Your task to perform on an android device: Open Youtube and go to the subscriptions tab Image 0: 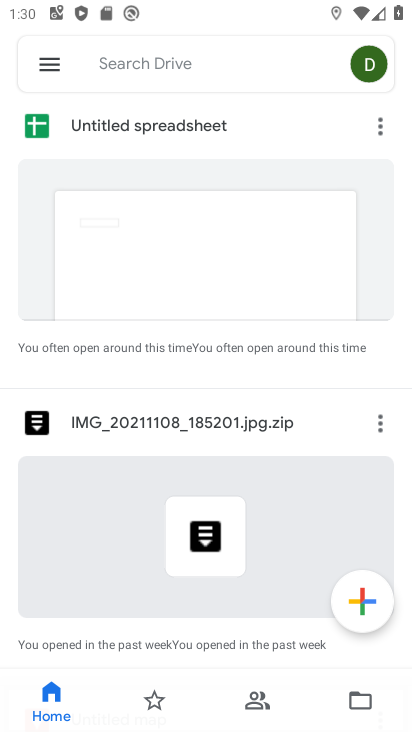
Step 0: press home button
Your task to perform on an android device: Open Youtube and go to the subscriptions tab Image 1: 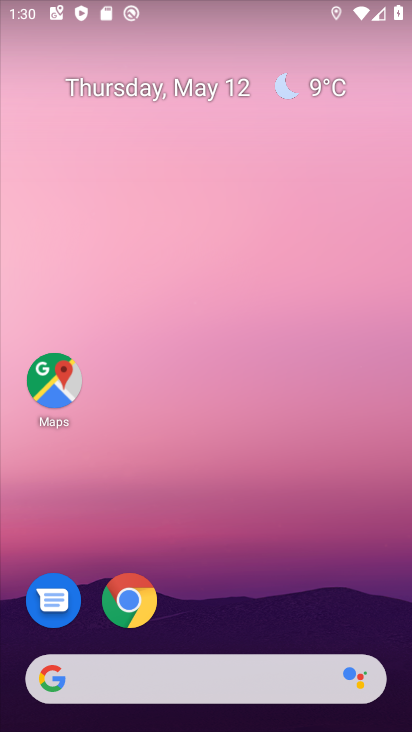
Step 1: drag from (293, 590) to (341, 0)
Your task to perform on an android device: Open Youtube and go to the subscriptions tab Image 2: 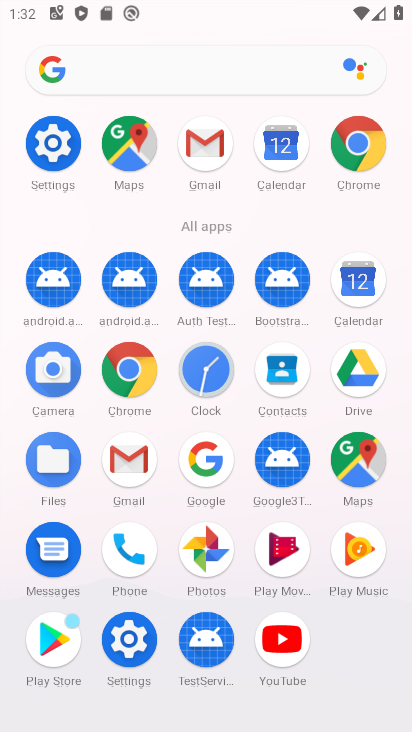
Step 2: click (263, 647)
Your task to perform on an android device: Open Youtube and go to the subscriptions tab Image 3: 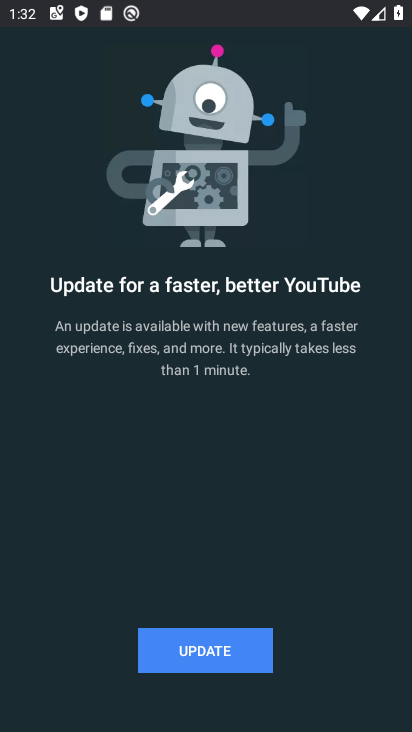
Step 3: click (263, 647)
Your task to perform on an android device: Open Youtube and go to the subscriptions tab Image 4: 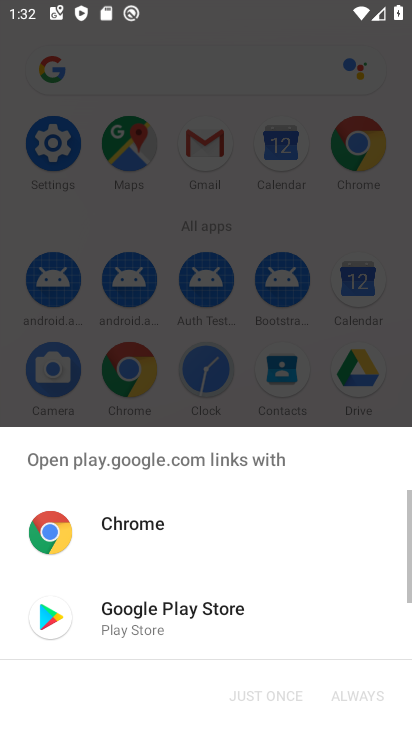
Step 4: click (261, 624)
Your task to perform on an android device: Open Youtube and go to the subscriptions tab Image 5: 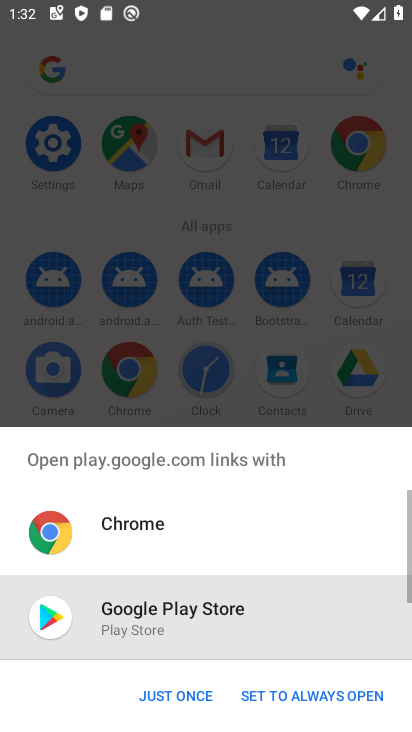
Step 5: click (259, 694)
Your task to perform on an android device: Open Youtube and go to the subscriptions tab Image 6: 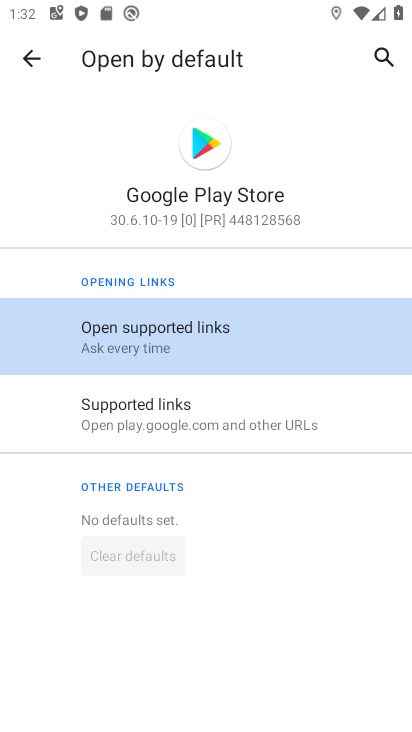
Step 6: click (18, 59)
Your task to perform on an android device: Open Youtube and go to the subscriptions tab Image 7: 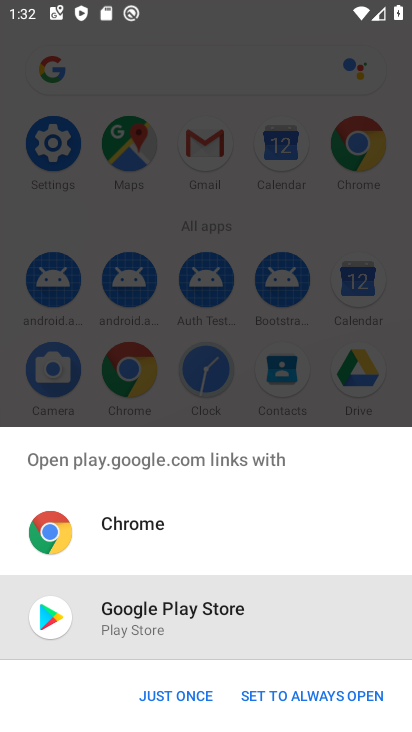
Step 7: click (150, 705)
Your task to perform on an android device: Open Youtube and go to the subscriptions tab Image 8: 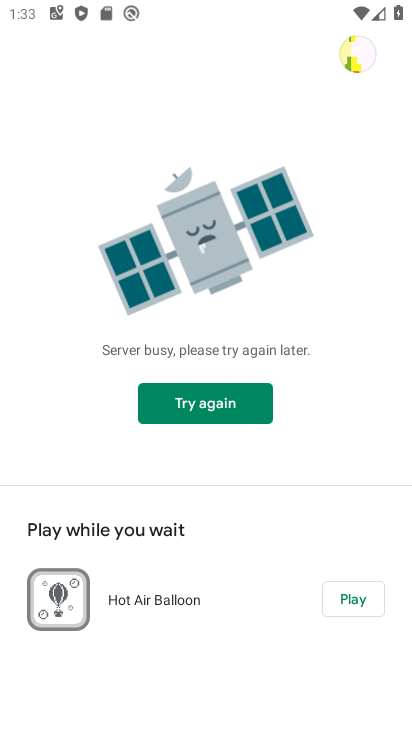
Step 8: task complete